Your task to perform on an android device: Open Chrome and go to settings Image 0: 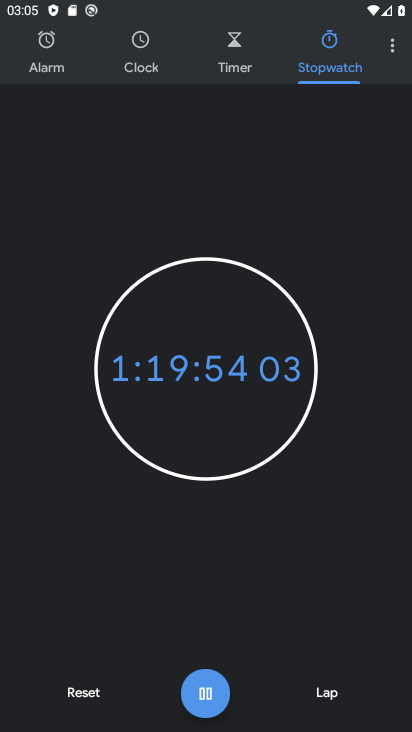
Step 0: press home button
Your task to perform on an android device: Open Chrome and go to settings Image 1: 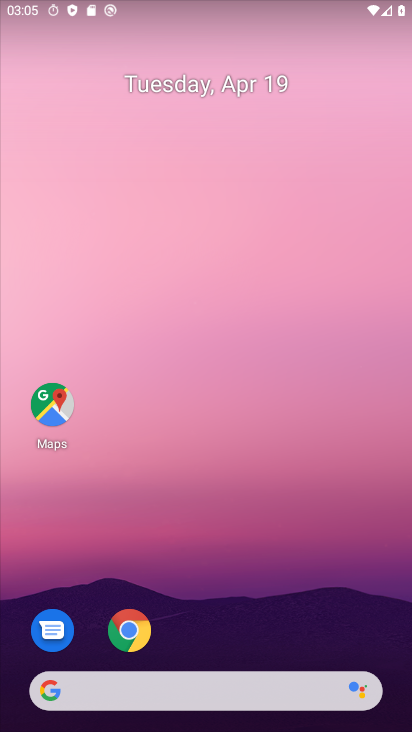
Step 1: click (136, 628)
Your task to perform on an android device: Open Chrome and go to settings Image 2: 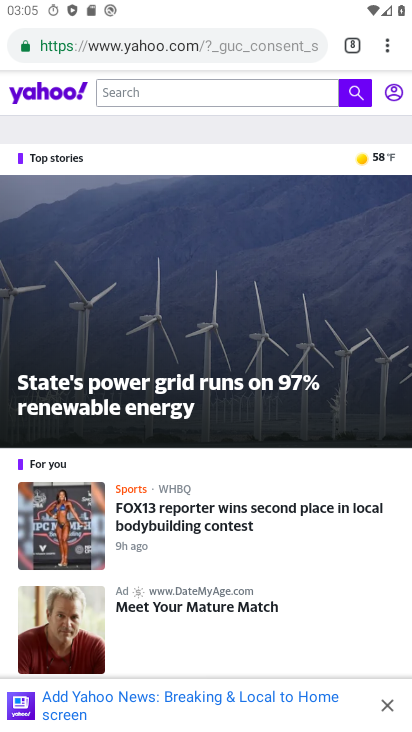
Step 2: click (391, 40)
Your task to perform on an android device: Open Chrome and go to settings Image 3: 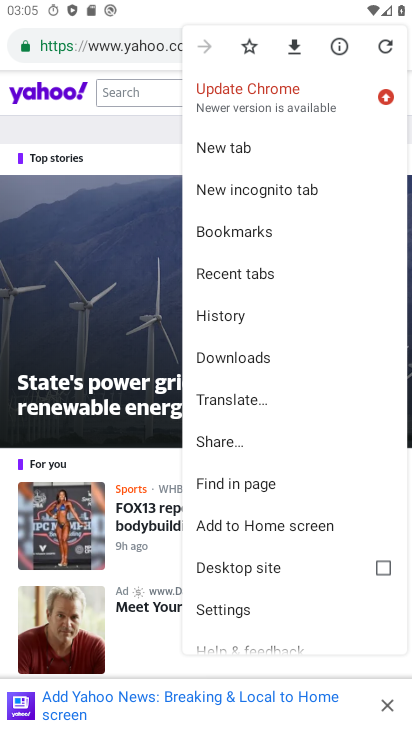
Step 3: click (229, 607)
Your task to perform on an android device: Open Chrome and go to settings Image 4: 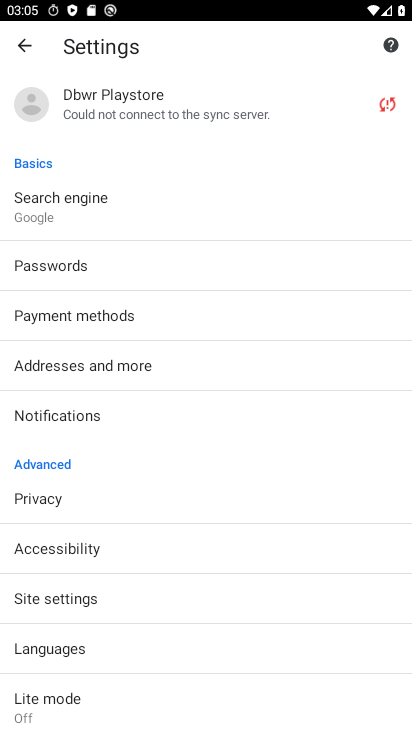
Step 4: task complete